Your task to perform on an android device: Do I have any events today? Image 0: 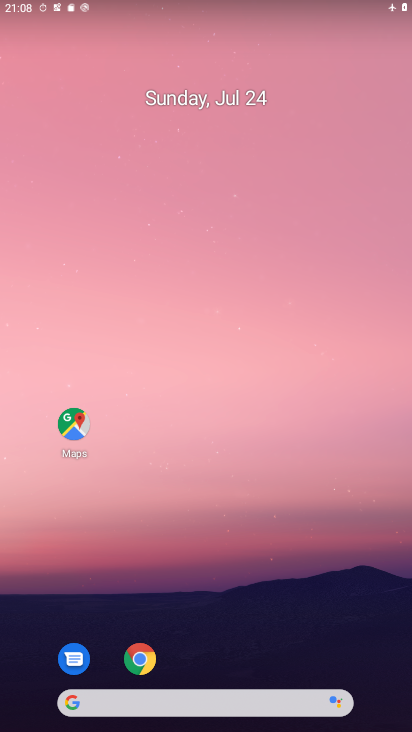
Step 0: drag from (224, 726) to (208, 141)
Your task to perform on an android device: Do I have any events today? Image 1: 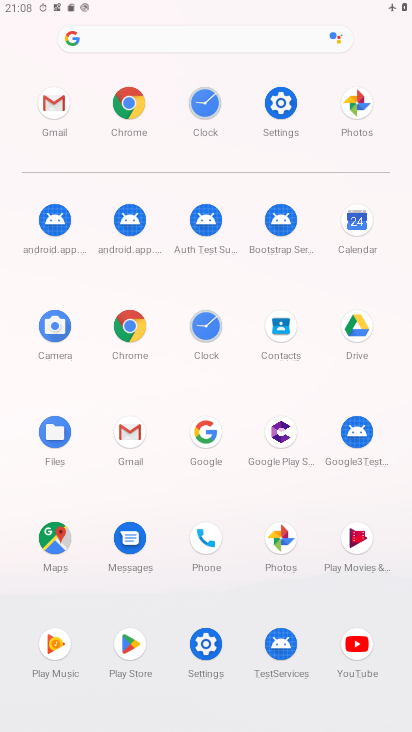
Step 1: click (354, 217)
Your task to perform on an android device: Do I have any events today? Image 2: 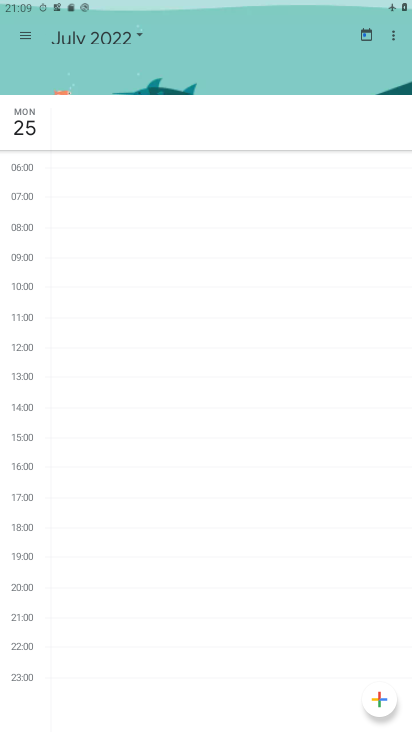
Step 2: click (22, 31)
Your task to perform on an android device: Do I have any events today? Image 3: 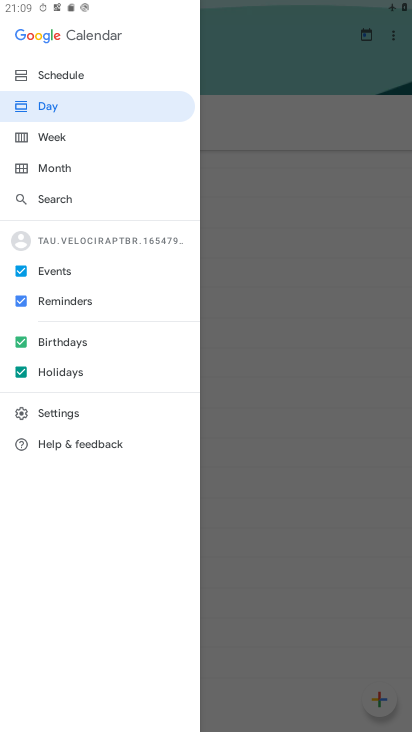
Step 3: click (19, 368)
Your task to perform on an android device: Do I have any events today? Image 4: 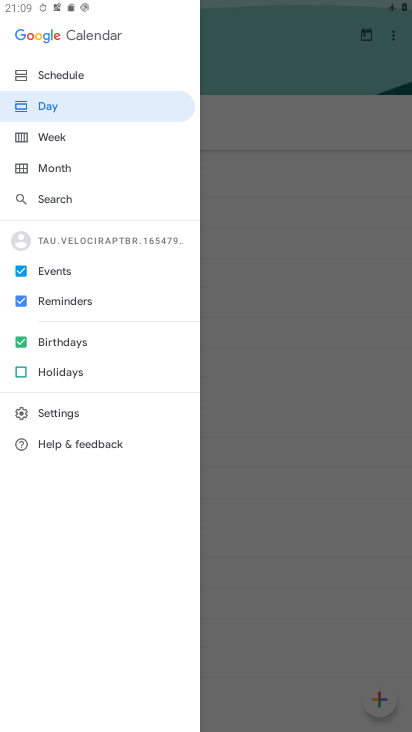
Step 4: click (20, 341)
Your task to perform on an android device: Do I have any events today? Image 5: 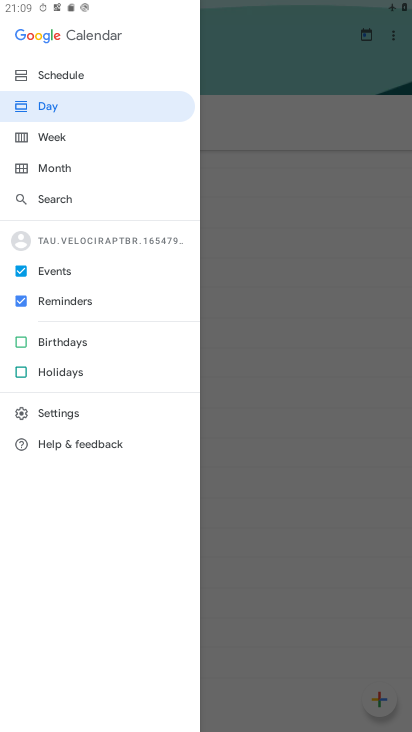
Step 5: click (22, 294)
Your task to perform on an android device: Do I have any events today? Image 6: 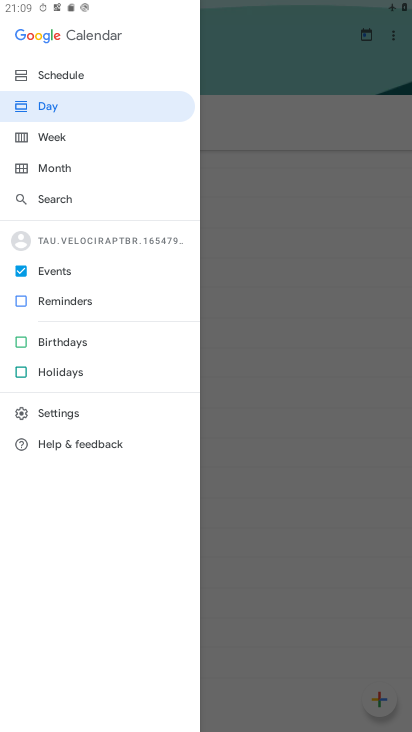
Step 6: click (282, 196)
Your task to perform on an android device: Do I have any events today? Image 7: 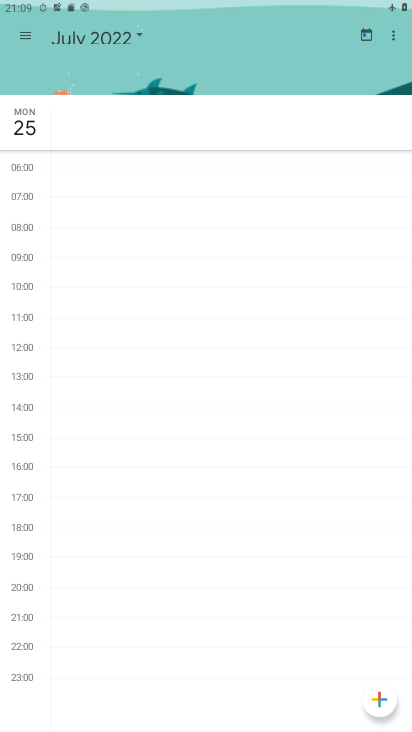
Step 7: click (25, 117)
Your task to perform on an android device: Do I have any events today? Image 8: 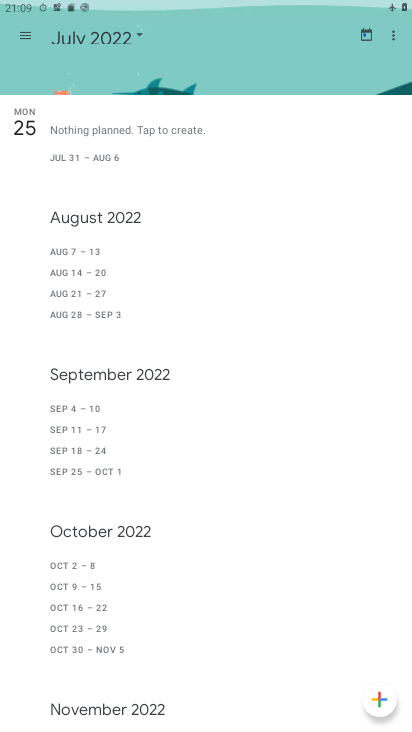
Step 8: click (24, 126)
Your task to perform on an android device: Do I have any events today? Image 9: 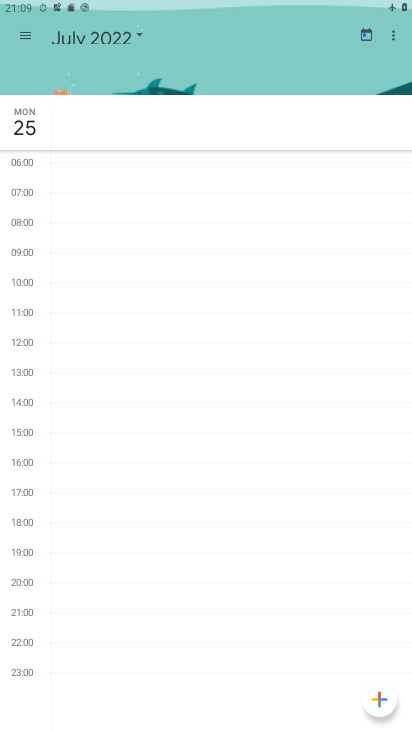
Step 9: task complete